Your task to perform on an android device: all mails in gmail Image 0: 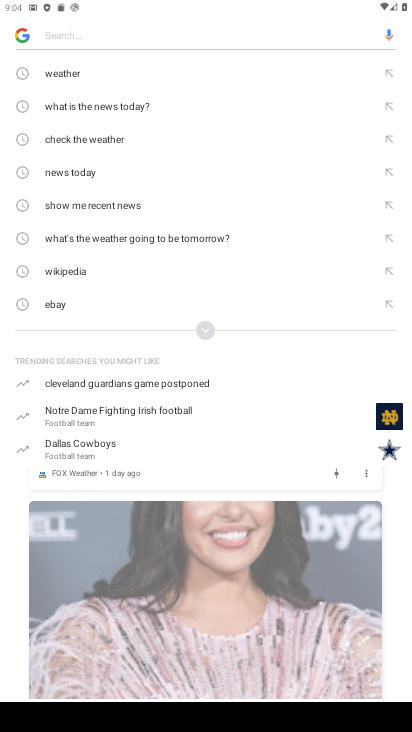
Step 0: press home button
Your task to perform on an android device: all mails in gmail Image 1: 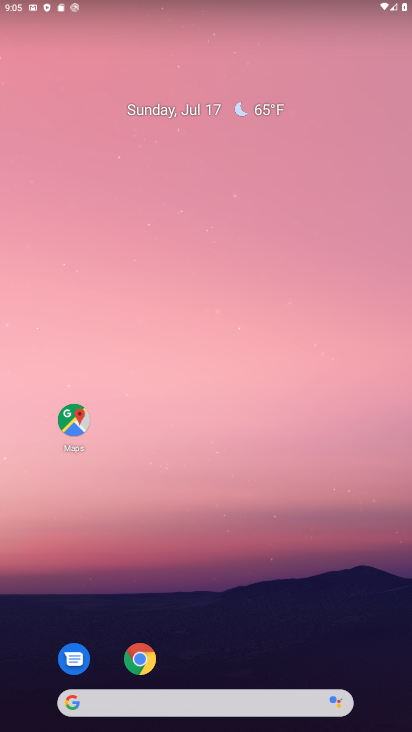
Step 1: drag from (196, 647) to (218, 205)
Your task to perform on an android device: all mails in gmail Image 2: 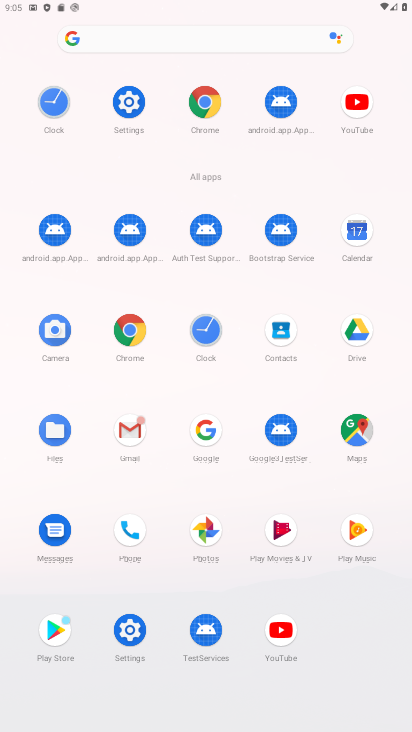
Step 2: click (128, 426)
Your task to perform on an android device: all mails in gmail Image 3: 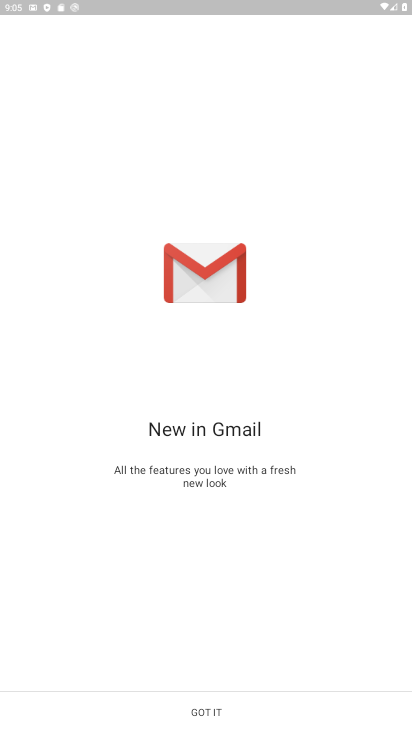
Step 3: click (250, 719)
Your task to perform on an android device: all mails in gmail Image 4: 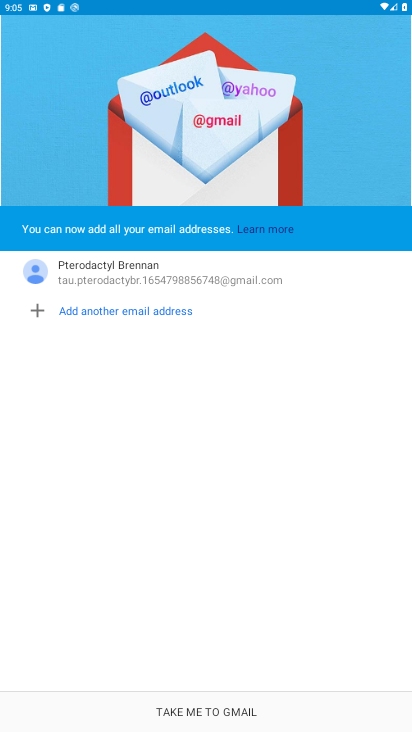
Step 4: click (227, 713)
Your task to perform on an android device: all mails in gmail Image 5: 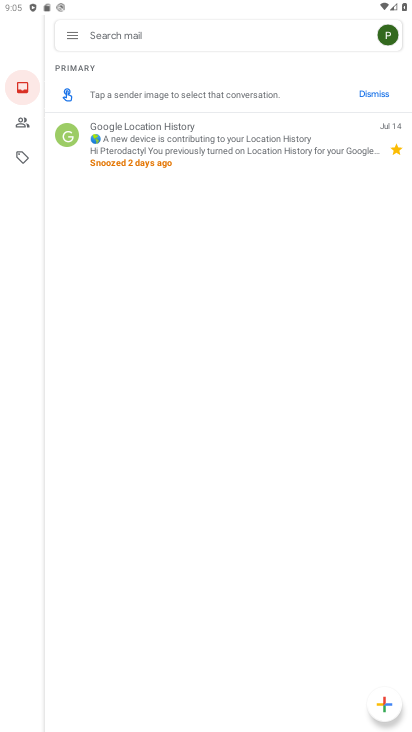
Step 5: click (60, 38)
Your task to perform on an android device: all mails in gmail Image 6: 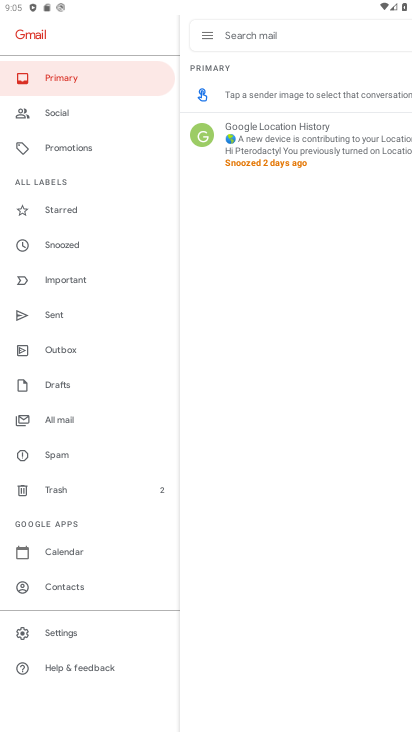
Step 6: click (65, 425)
Your task to perform on an android device: all mails in gmail Image 7: 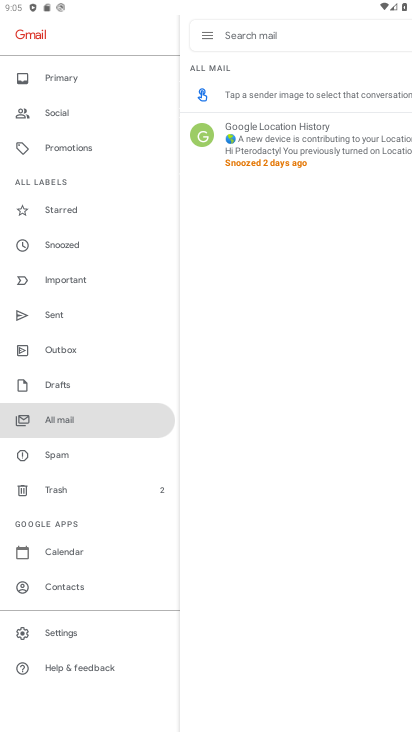
Step 7: task complete